Your task to perform on an android device: Open maps Image 0: 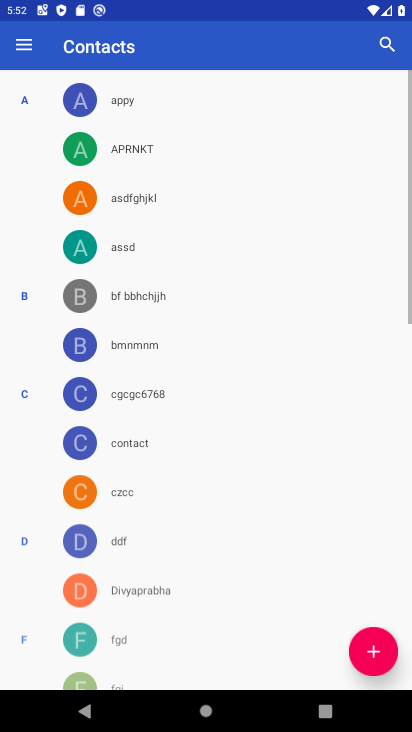
Step 0: drag from (210, 696) to (148, 153)
Your task to perform on an android device: Open maps Image 1: 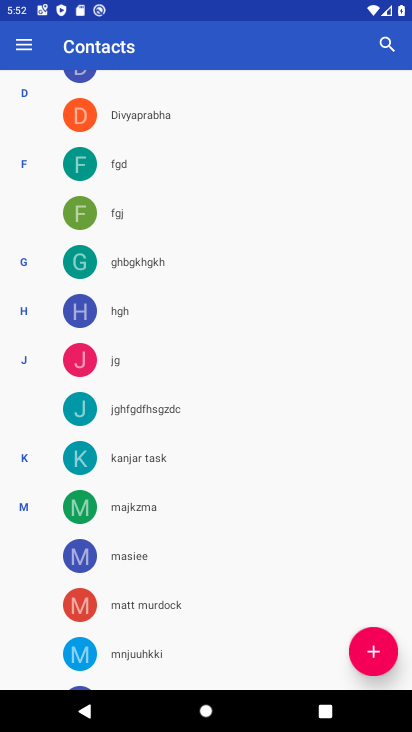
Step 1: press home button
Your task to perform on an android device: Open maps Image 2: 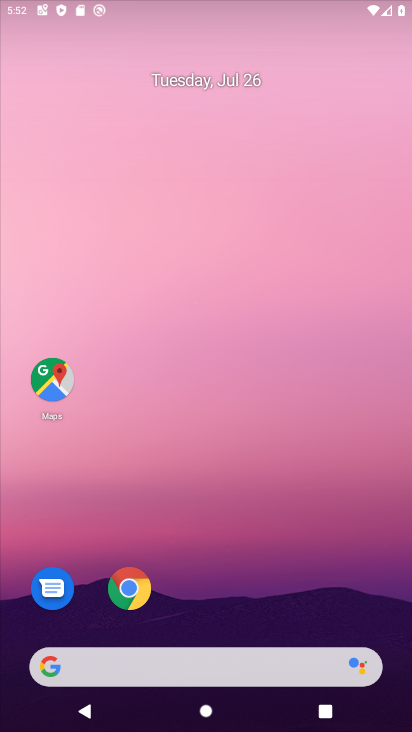
Step 2: drag from (179, 558) to (123, 118)
Your task to perform on an android device: Open maps Image 3: 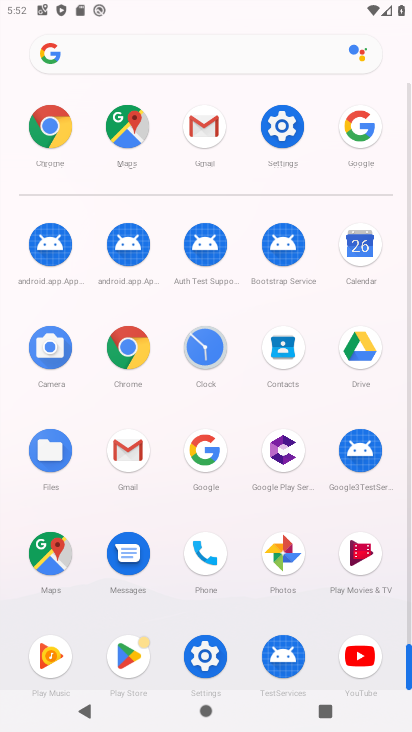
Step 3: click (123, 125)
Your task to perform on an android device: Open maps Image 4: 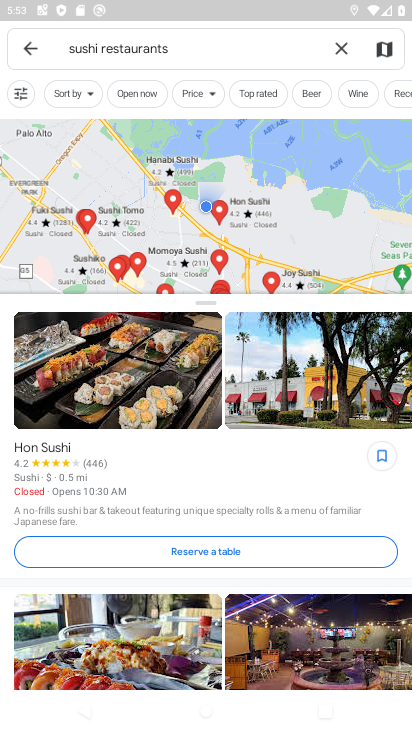
Step 4: task complete